Your task to perform on an android device: Search for seafood restaurants on Google Maps Image 0: 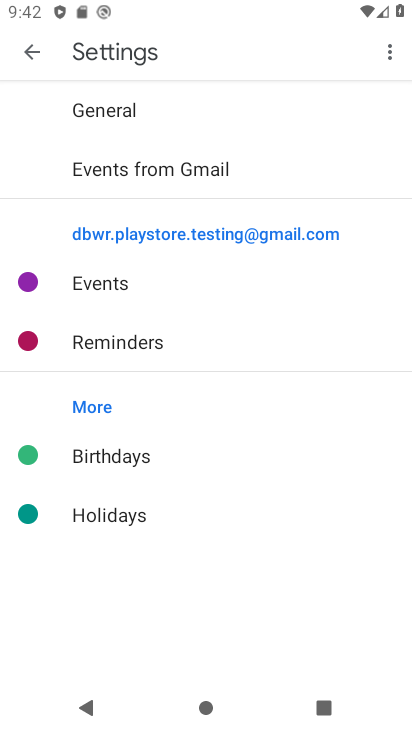
Step 0: press home button
Your task to perform on an android device: Search for seafood restaurants on Google Maps Image 1: 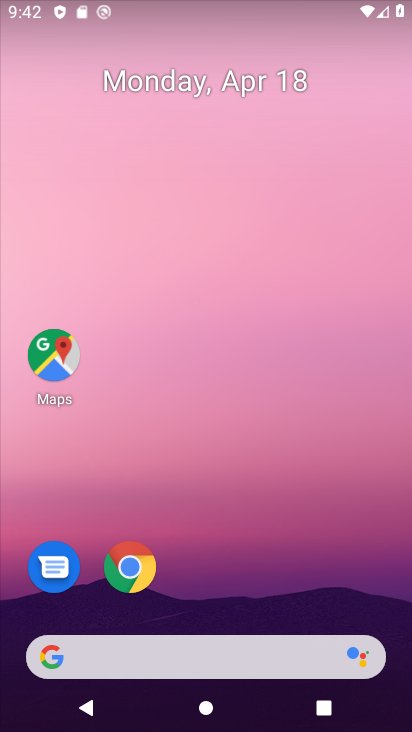
Step 1: click (54, 350)
Your task to perform on an android device: Search for seafood restaurants on Google Maps Image 2: 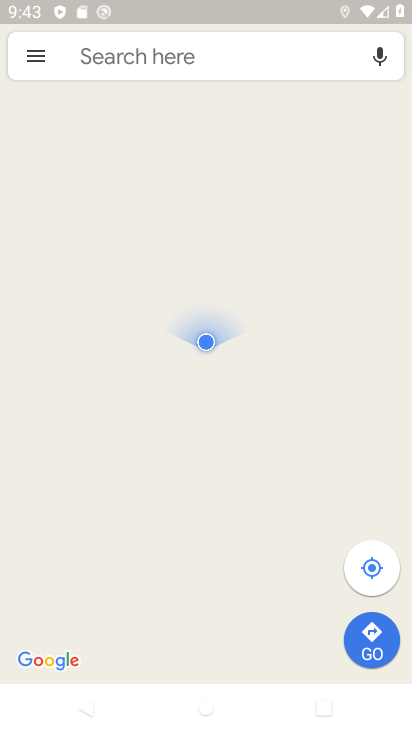
Step 2: click (194, 52)
Your task to perform on an android device: Search for seafood restaurants on Google Maps Image 3: 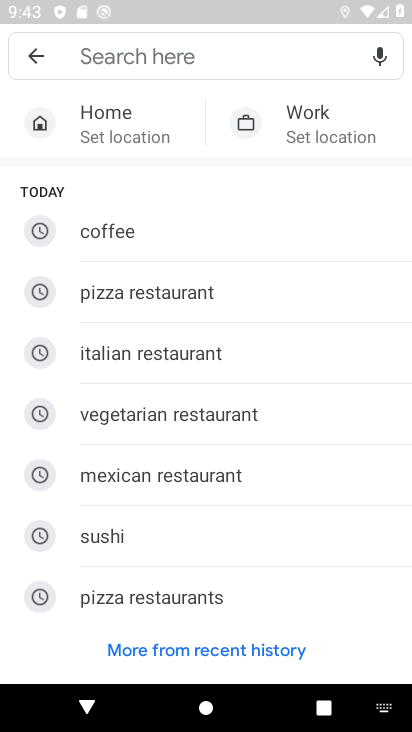
Step 3: click (194, 55)
Your task to perform on an android device: Search for seafood restaurants on Google Maps Image 4: 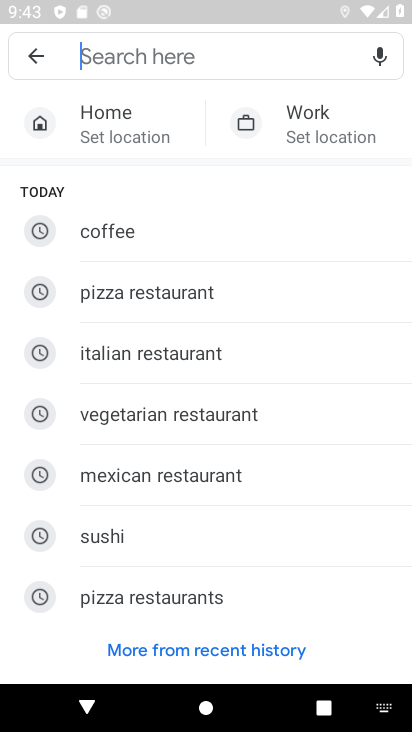
Step 4: type "seafood restaurants"
Your task to perform on an android device: Search for seafood restaurants on Google Maps Image 5: 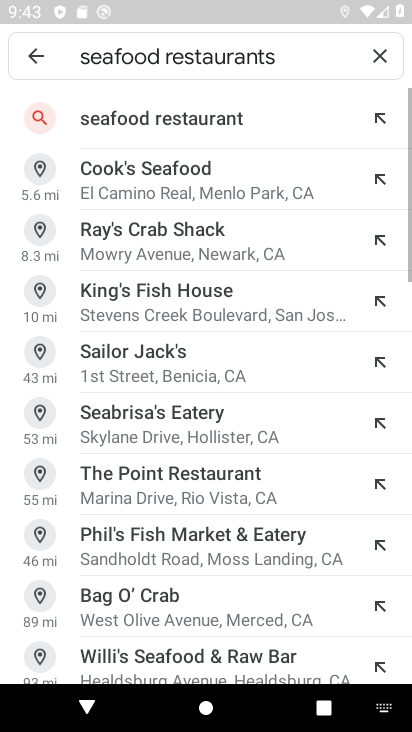
Step 5: click (161, 114)
Your task to perform on an android device: Search for seafood restaurants on Google Maps Image 6: 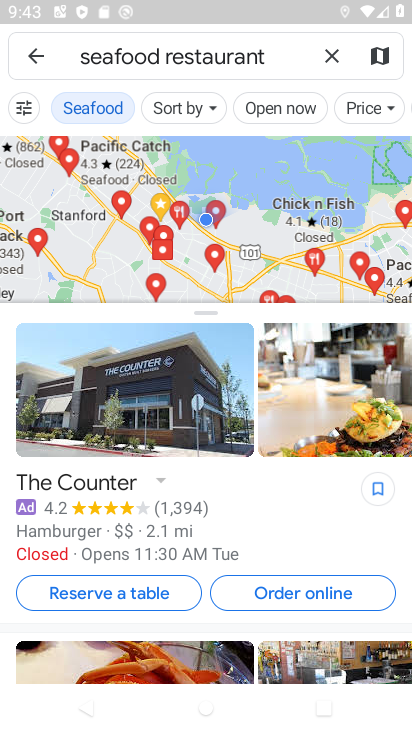
Step 6: task complete